Your task to perform on an android device: Go to Reddit.com Image 0: 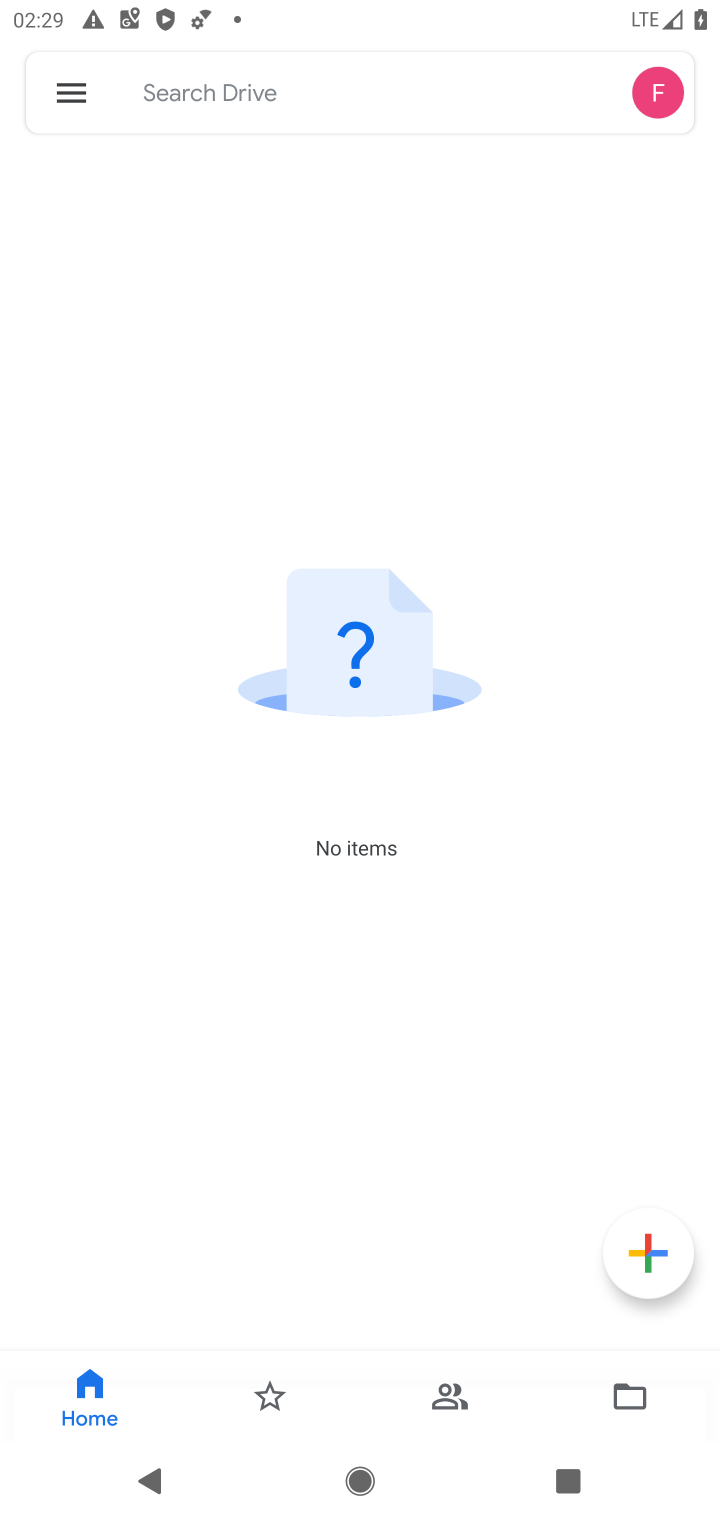
Step 0: press home button
Your task to perform on an android device: Go to Reddit.com Image 1: 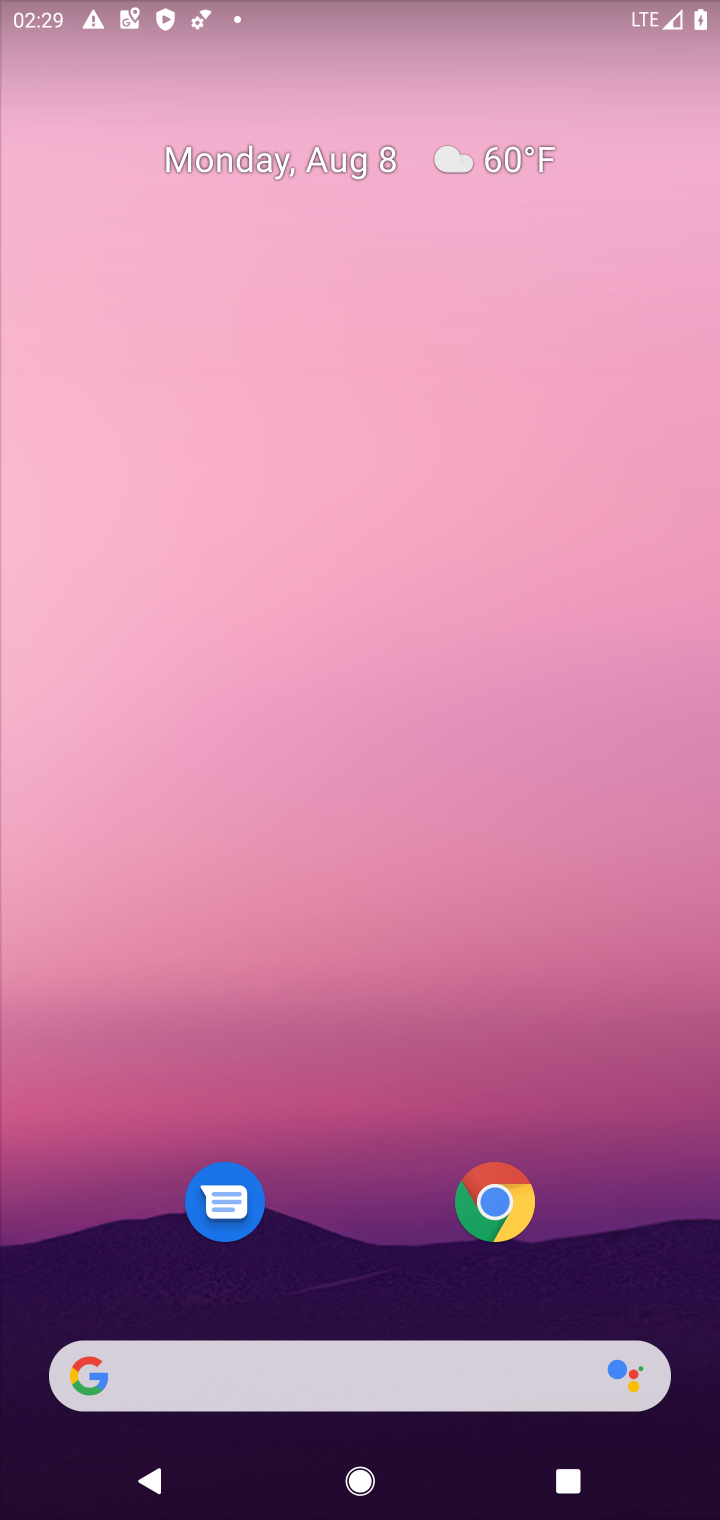
Step 1: click (495, 1208)
Your task to perform on an android device: Go to Reddit.com Image 2: 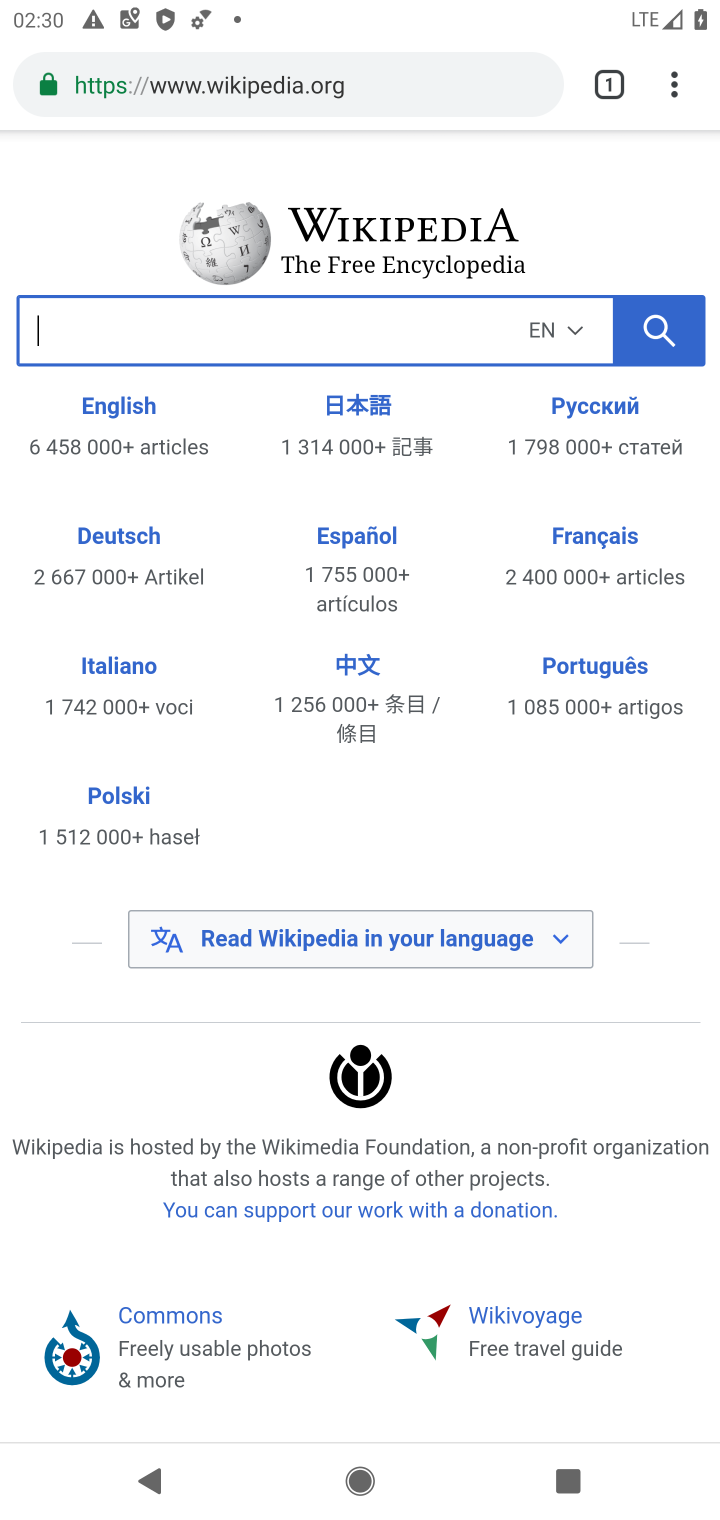
Step 2: click (229, 71)
Your task to perform on an android device: Go to Reddit.com Image 3: 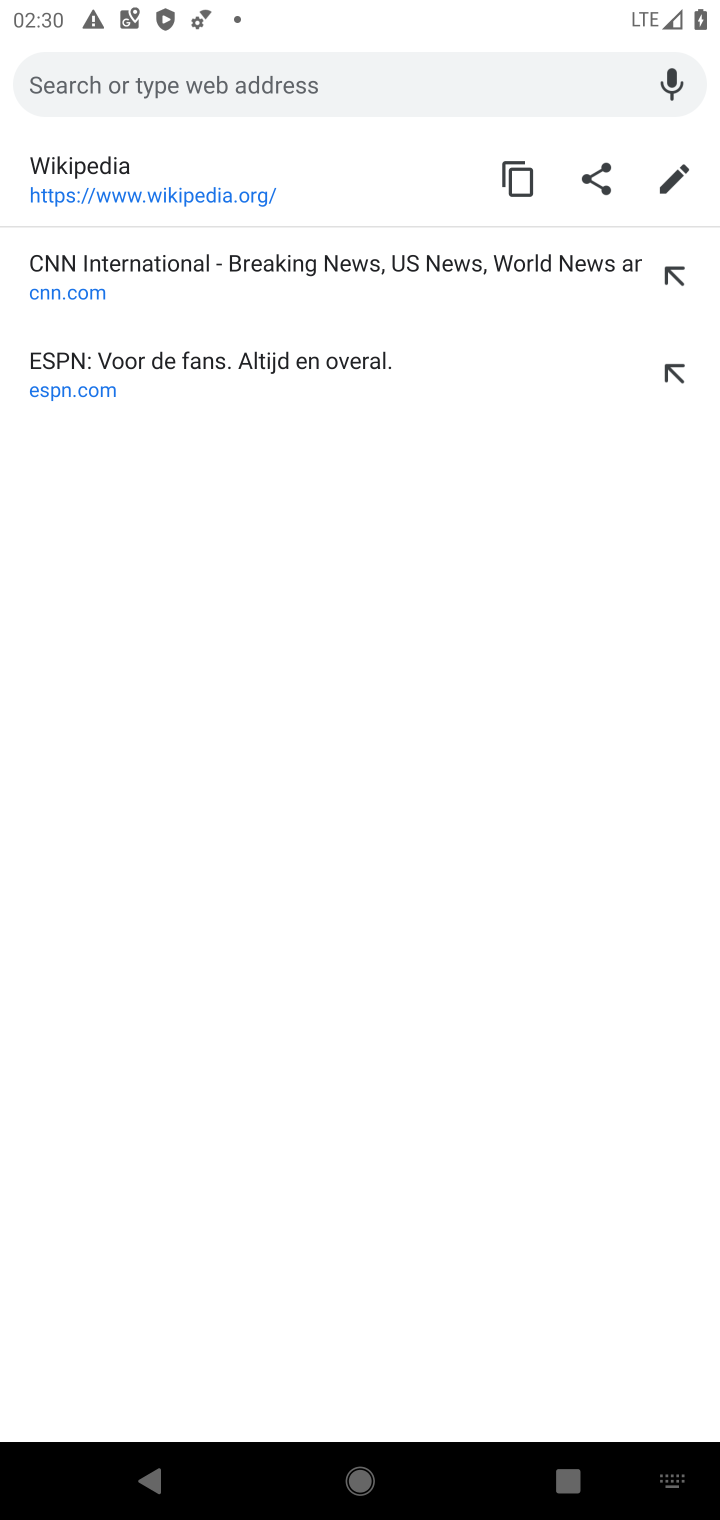
Step 3: type "www.reddit.com"
Your task to perform on an android device: Go to Reddit.com Image 4: 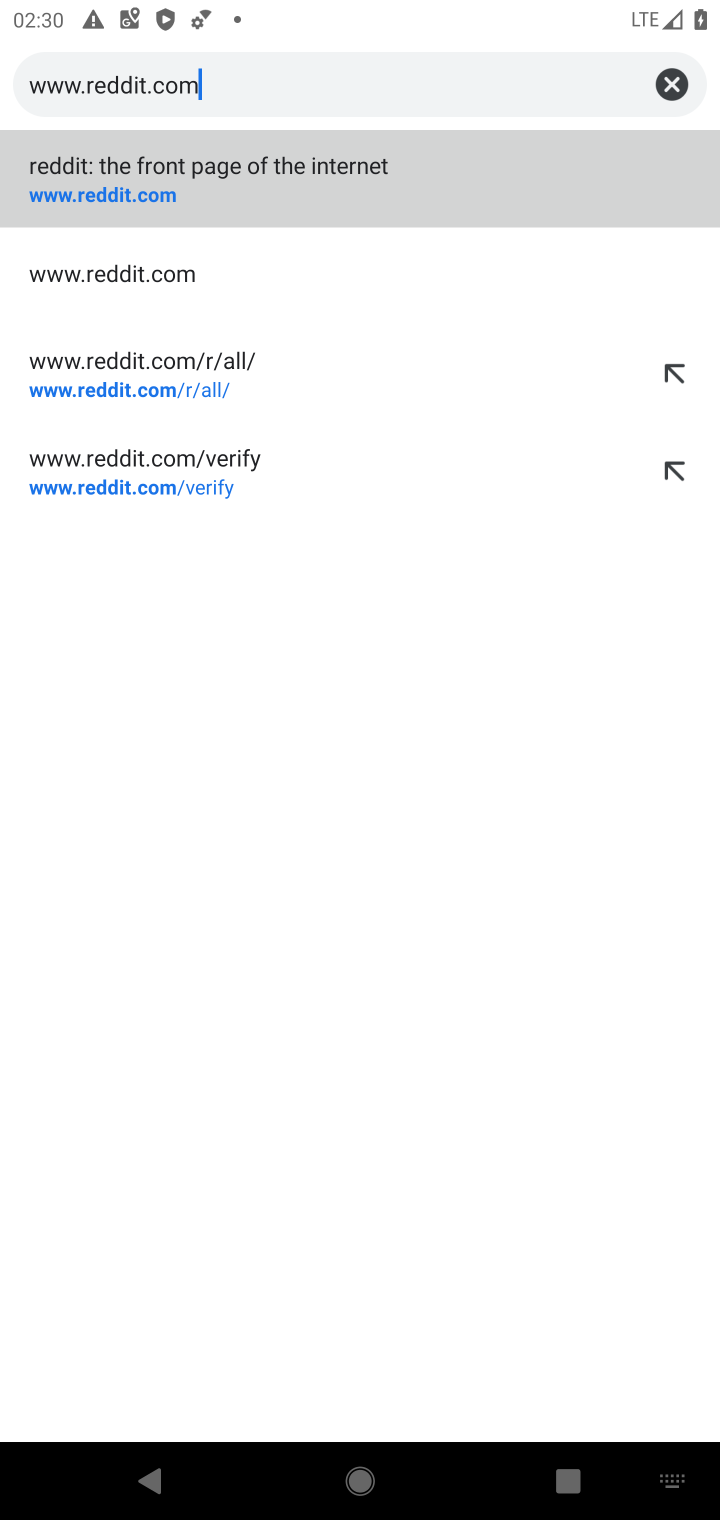
Step 4: click (145, 174)
Your task to perform on an android device: Go to Reddit.com Image 5: 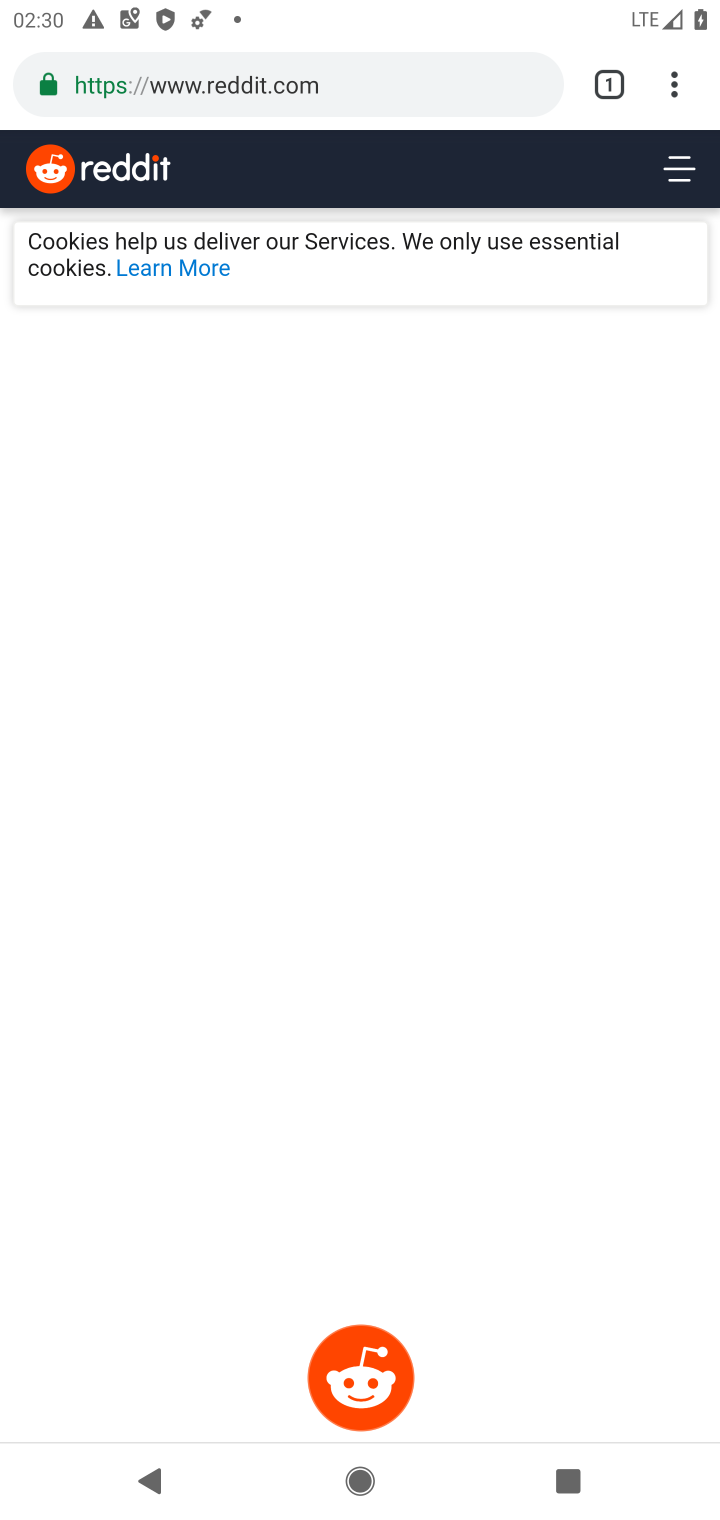
Step 5: task complete